Your task to perform on an android device: Show me productivity apps on the Play Store Image 0: 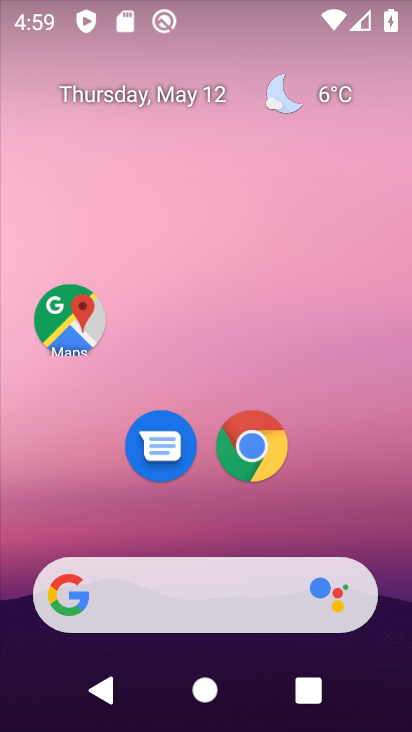
Step 0: drag from (335, 482) to (296, 139)
Your task to perform on an android device: Show me productivity apps on the Play Store Image 1: 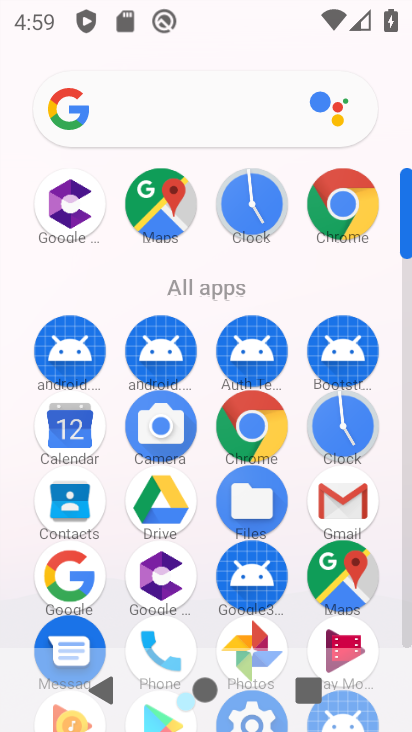
Step 1: drag from (275, 282) to (266, 11)
Your task to perform on an android device: Show me productivity apps on the Play Store Image 2: 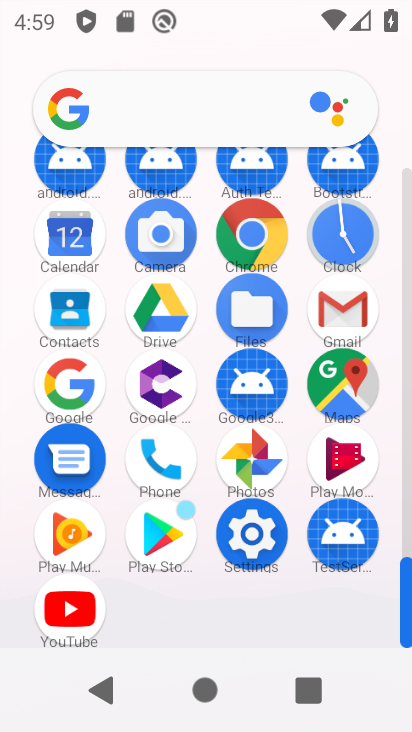
Step 2: click (145, 544)
Your task to perform on an android device: Show me productivity apps on the Play Store Image 3: 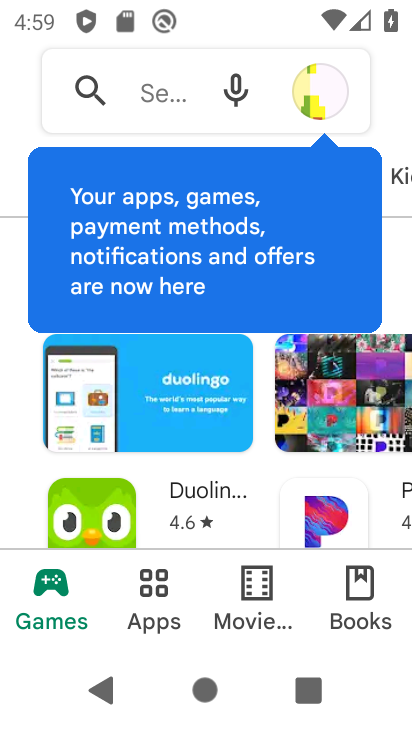
Step 3: click (153, 84)
Your task to perform on an android device: Show me productivity apps on the Play Store Image 4: 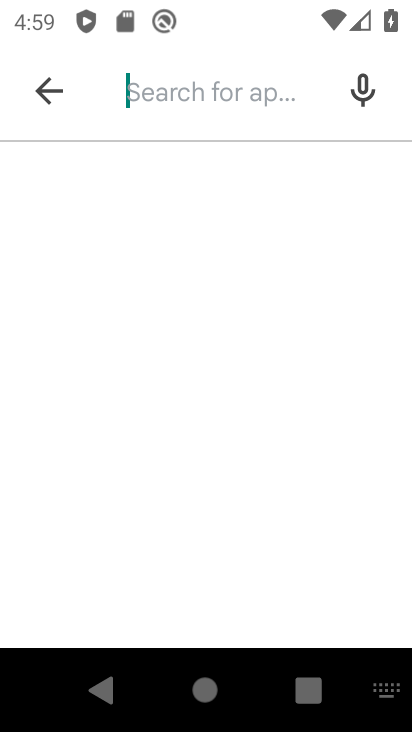
Step 4: type " productivity apps "
Your task to perform on an android device: Show me productivity apps on the Play Store Image 5: 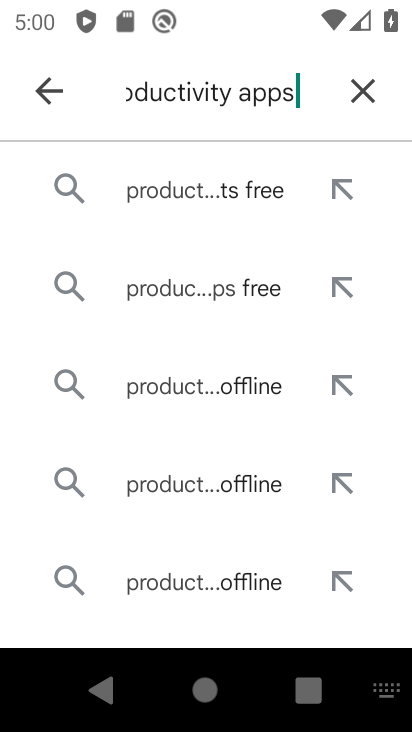
Step 5: click (202, 193)
Your task to perform on an android device: Show me productivity apps on the Play Store Image 6: 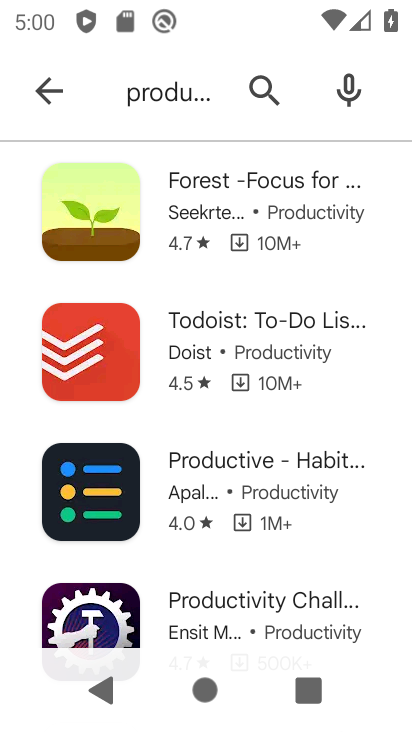
Step 6: task complete